Your task to perform on an android device: see tabs open on other devices in the chrome app Image 0: 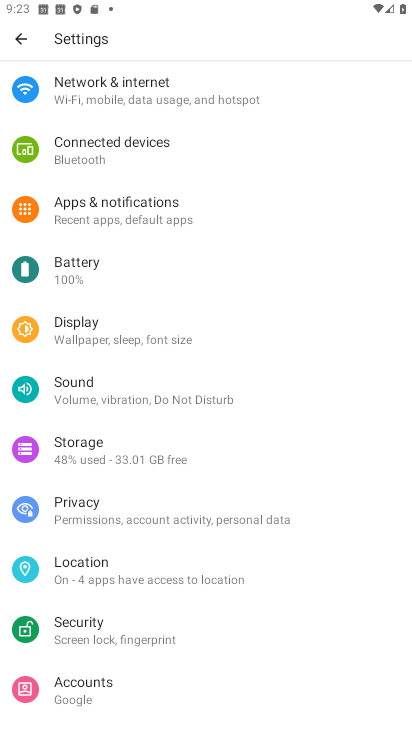
Step 0: press home button
Your task to perform on an android device: see tabs open on other devices in the chrome app Image 1: 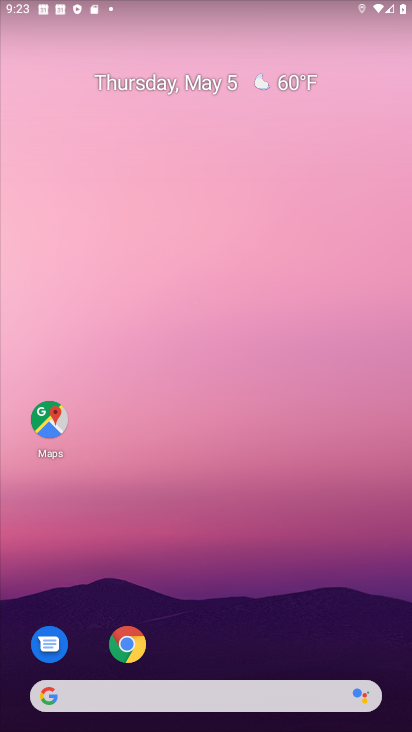
Step 1: drag from (197, 665) to (234, 319)
Your task to perform on an android device: see tabs open on other devices in the chrome app Image 2: 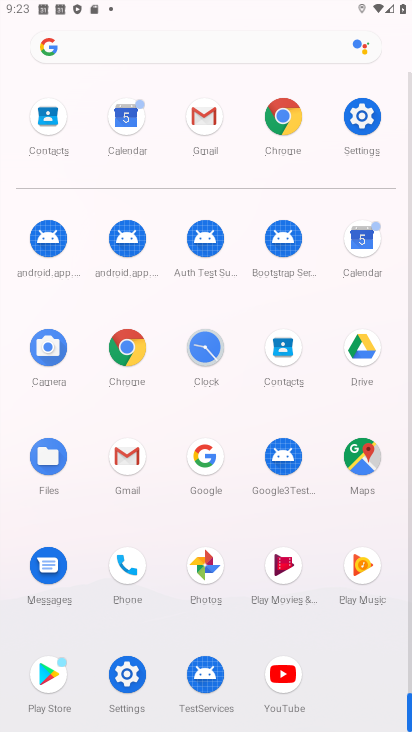
Step 2: click (115, 347)
Your task to perform on an android device: see tabs open on other devices in the chrome app Image 3: 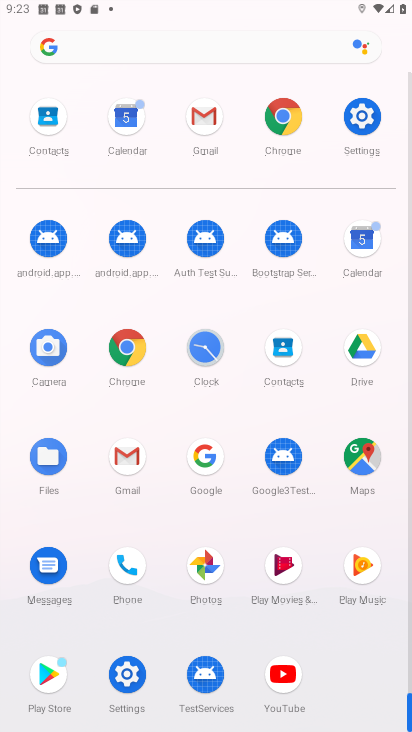
Step 3: click (115, 347)
Your task to perform on an android device: see tabs open on other devices in the chrome app Image 4: 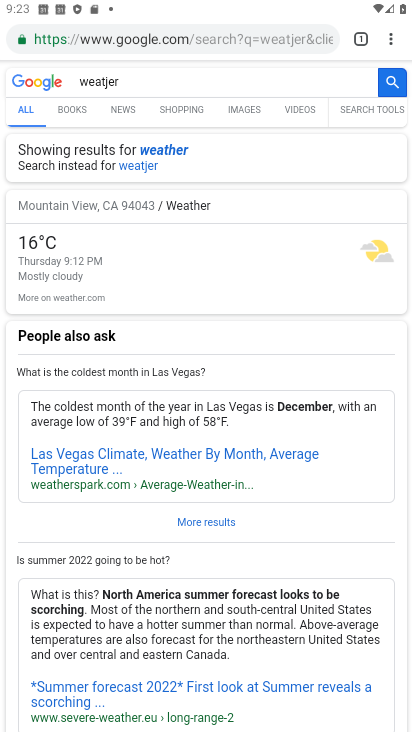
Step 4: task complete